Your task to perform on an android device: Go to notification settings Image 0: 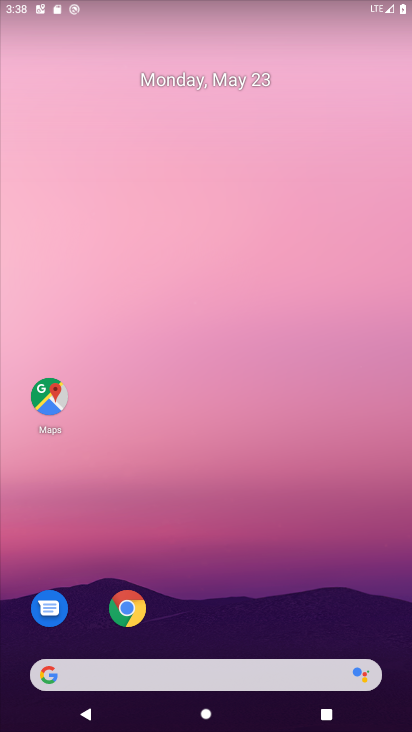
Step 0: drag from (216, 637) to (146, 36)
Your task to perform on an android device: Go to notification settings Image 1: 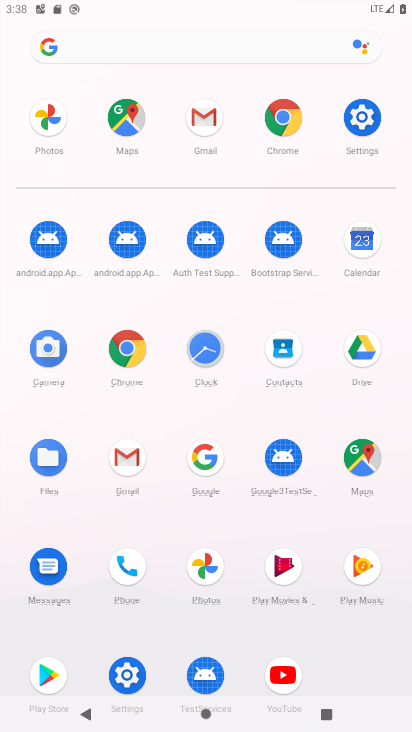
Step 1: click (350, 131)
Your task to perform on an android device: Go to notification settings Image 2: 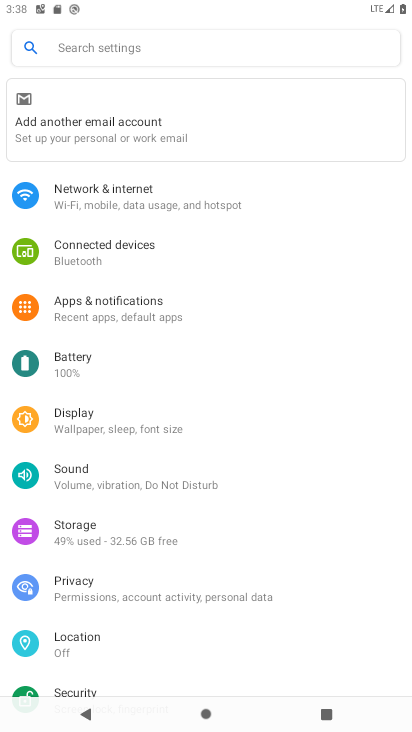
Step 2: click (224, 308)
Your task to perform on an android device: Go to notification settings Image 3: 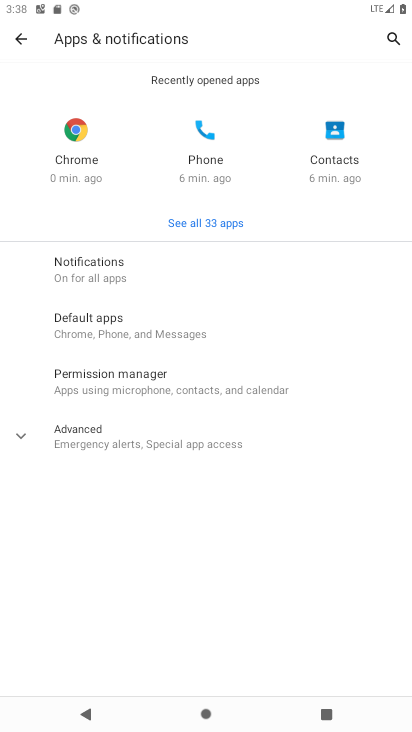
Step 3: click (152, 278)
Your task to perform on an android device: Go to notification settings Image 4: 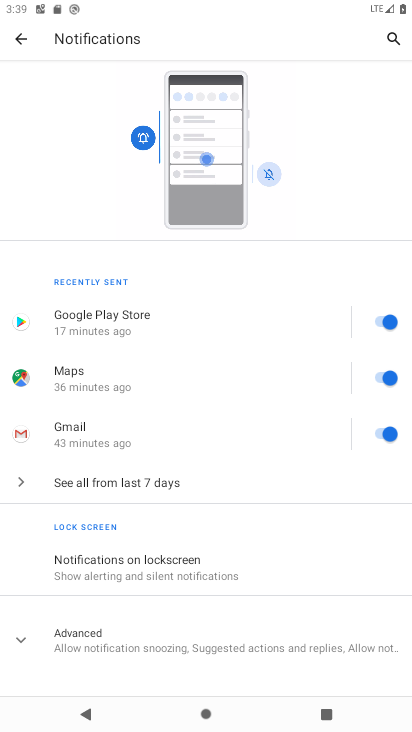
Step 4: task complete